Your task to perform on an android device: all mails in gmail Image 0: 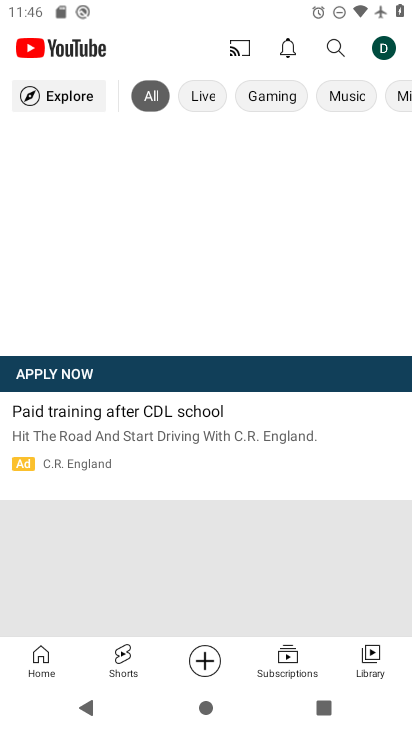
Step 0: press home button
Your task to perform on an android device: all mails in gmail Image 1: 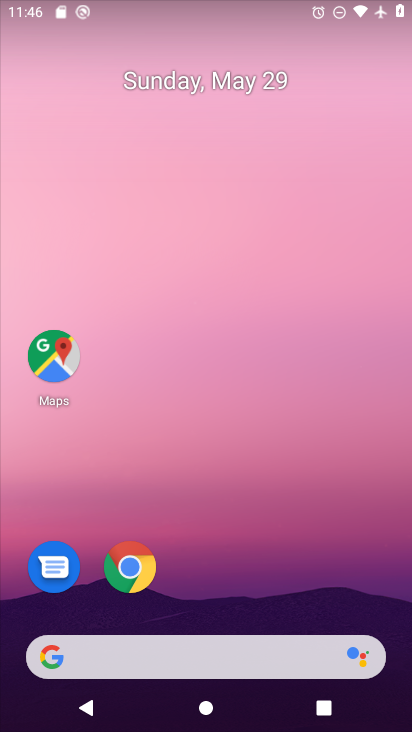
Step 1: drag from (382, 617) to (281, 47)
Your task to perform on an android device: all mails in gmail Image 2: 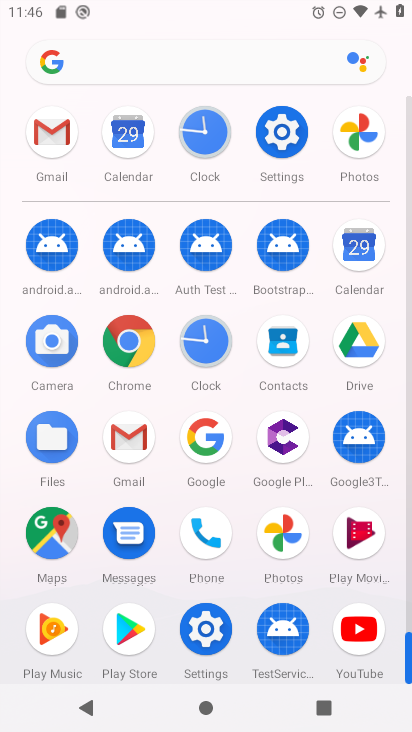
Step 2: click (129, 437)
Your task to perform on an android device: all mails in gmail Image 3: 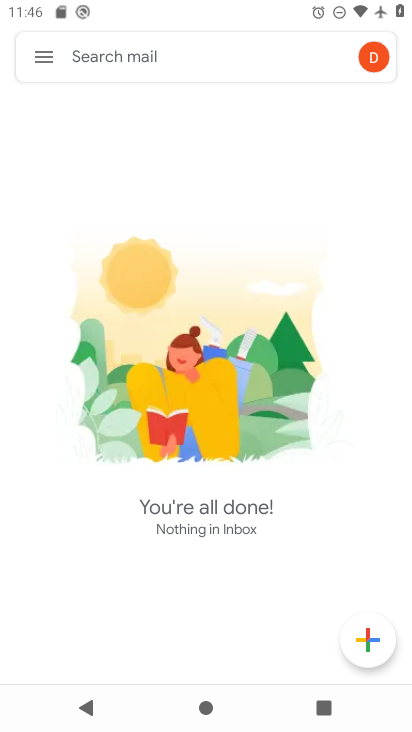
Step 3: click (41, 56)
Your task to perform on an android device: all mails in gmail Image 4: 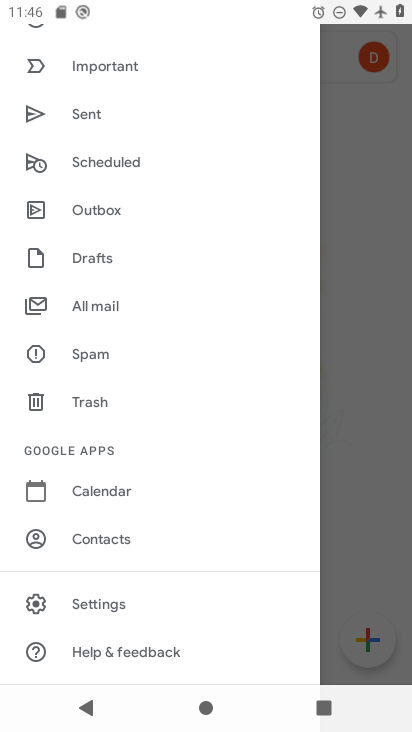
Step 4: click (106, 307)
Your task to perform on an android device: all mails in gmail Image 5: 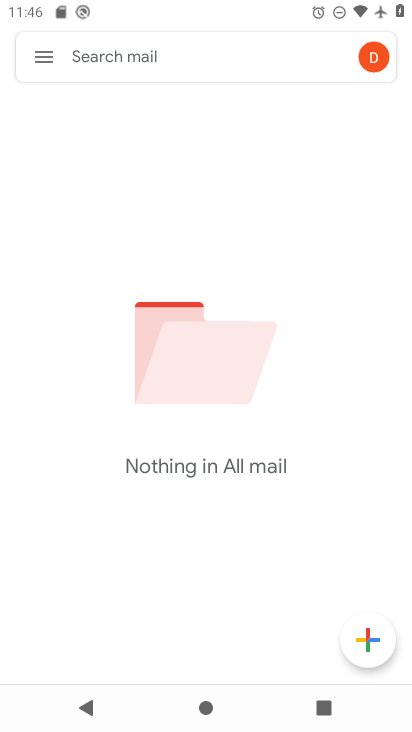
Step 5: task complete